Your task to perform on an android device: change the clock style Image 0: 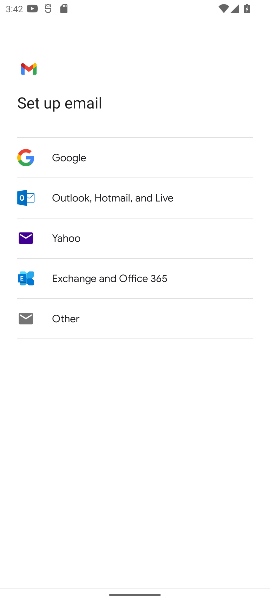
Step 0: press home button
Your task to perform on an android device: change the clock style Image 1: 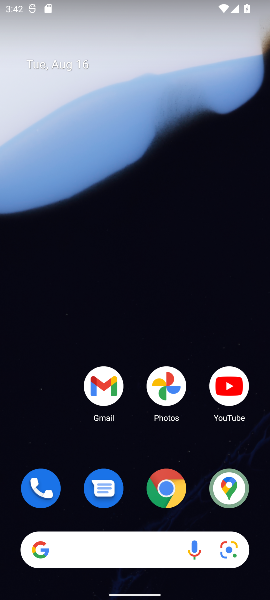
Step 1: drag from (51, 430) to (104, 62)
Your task to perform on an android device: change the clock style Image 2: 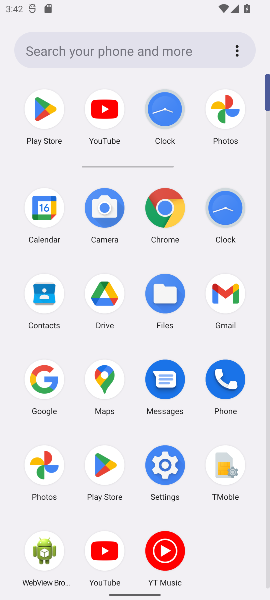
Step 2: click (218, 201)
Your task to perform on an android device: change the clock style Image 3: 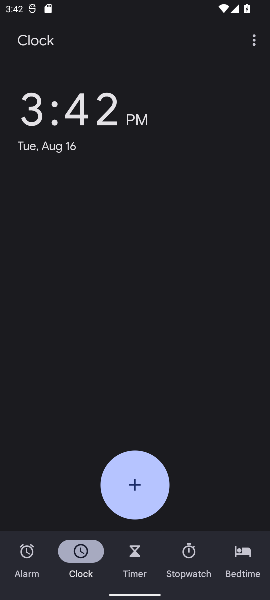
Step 3: task complete